Your task to perform on an android device: set the timer Image 0: 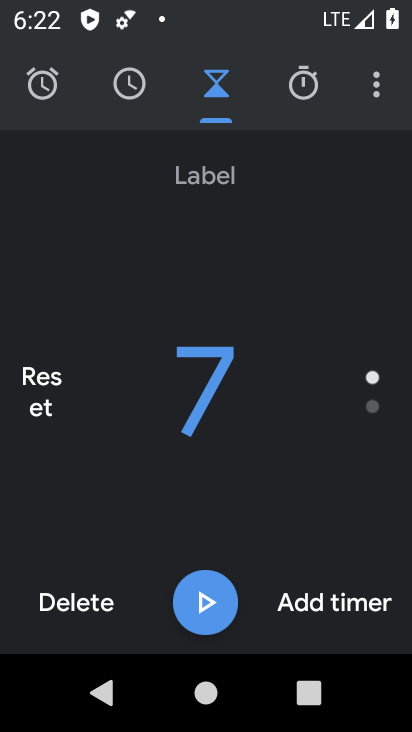
Step 0: press home button
Your task to perform on an android device: set the timer Image 1: 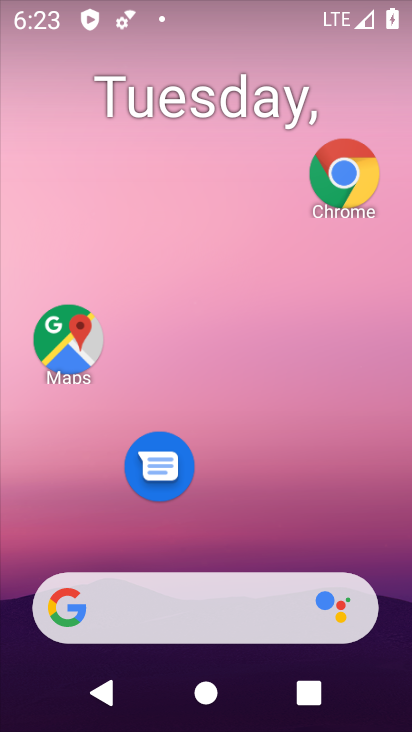
Step 1: drag from (352, 532) to (234, 139)
Your task to perform on an android device: set the timer Image 2: 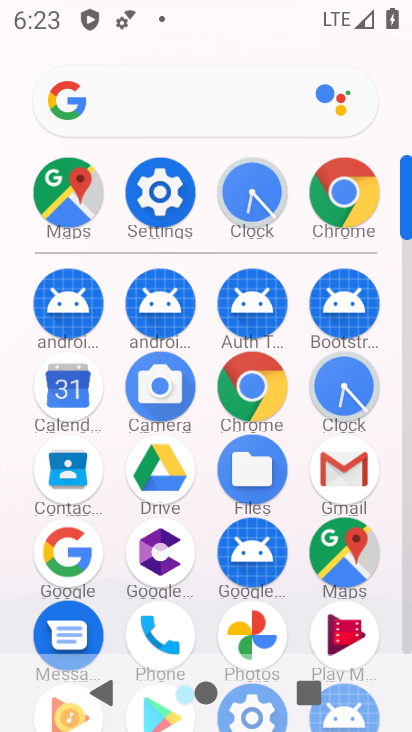
Step 2: click (334, 399)
Your task to perform on an android device: set the timer Image 3: 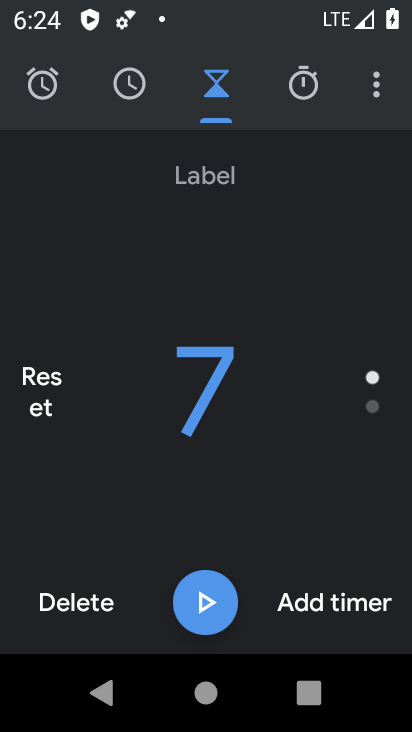
Step 3: click (311, 603)
Your task to perform on an android device: set the timer Image 4: 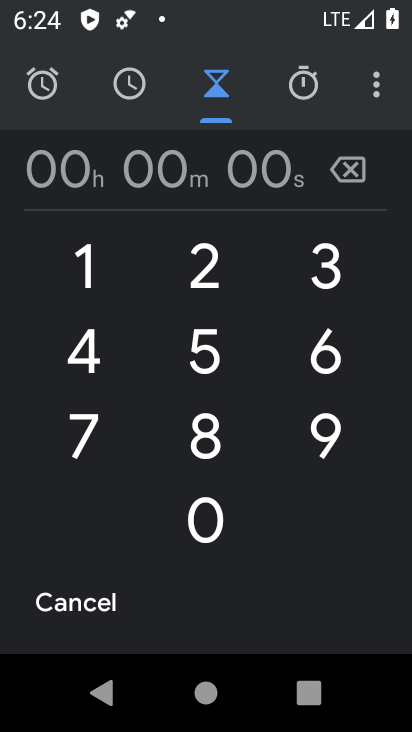
Step 4: click (216, 447)
Your task to perform on an android device: set the timer Image 5: 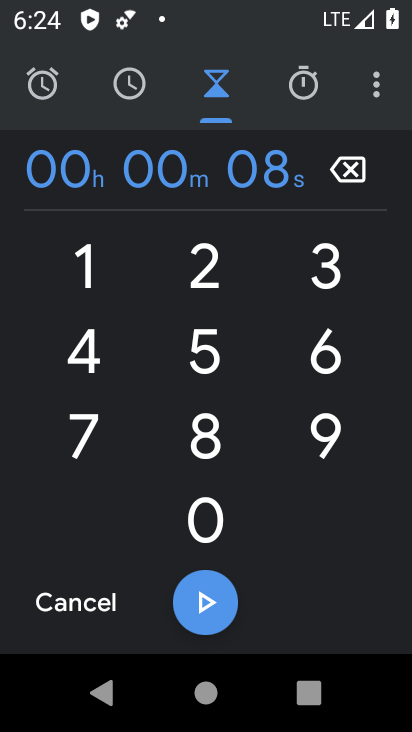
Step 5: click (216, 597)
Your task to perform on an android device: set the timer Image 6: 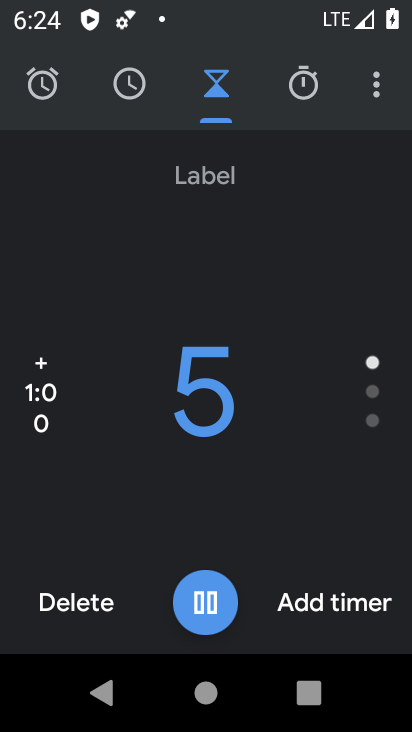
Step 6: task complete